Your task to perform on an android device: Go to Google Image 0: 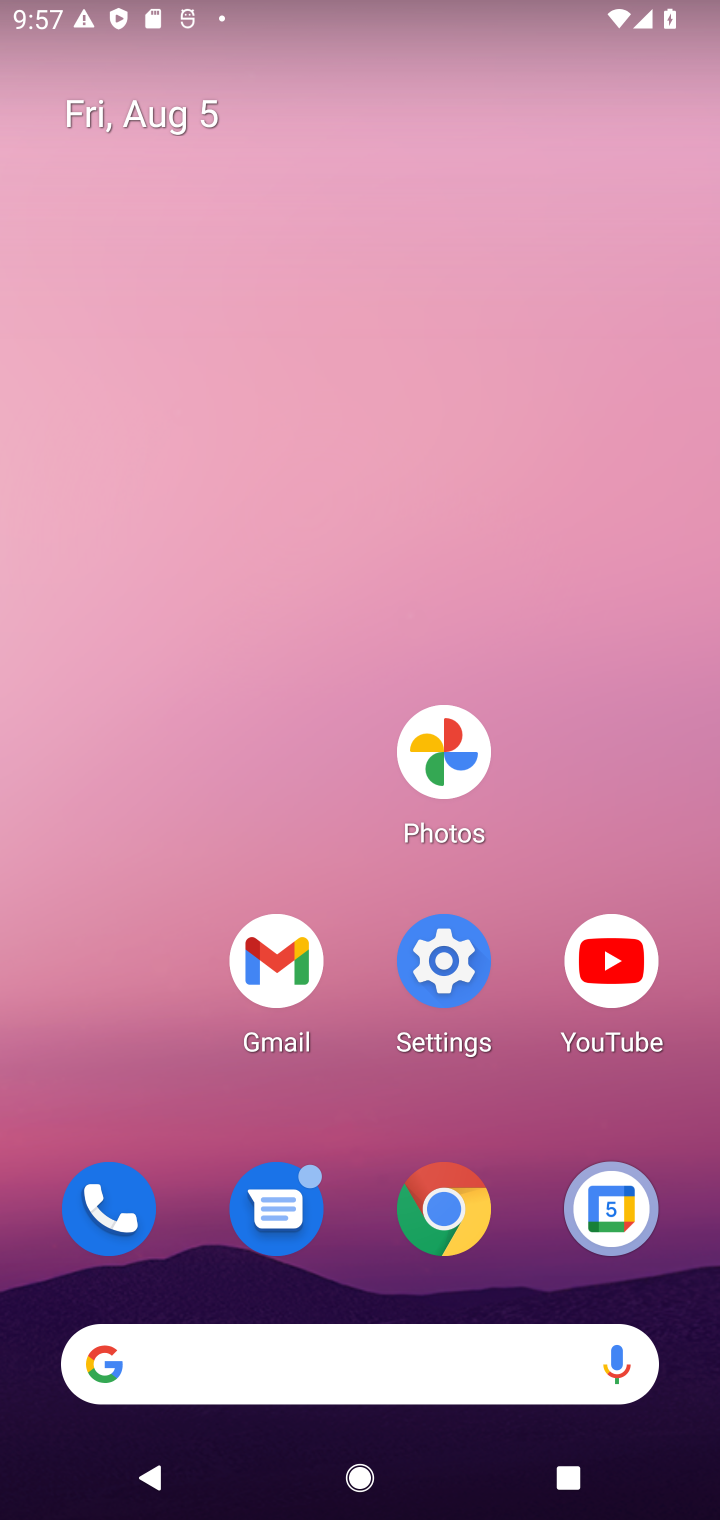
Step 0: drag from (374, 1272) to (414, 405)
Your task to perform on an android device: Go to Google Image 1: 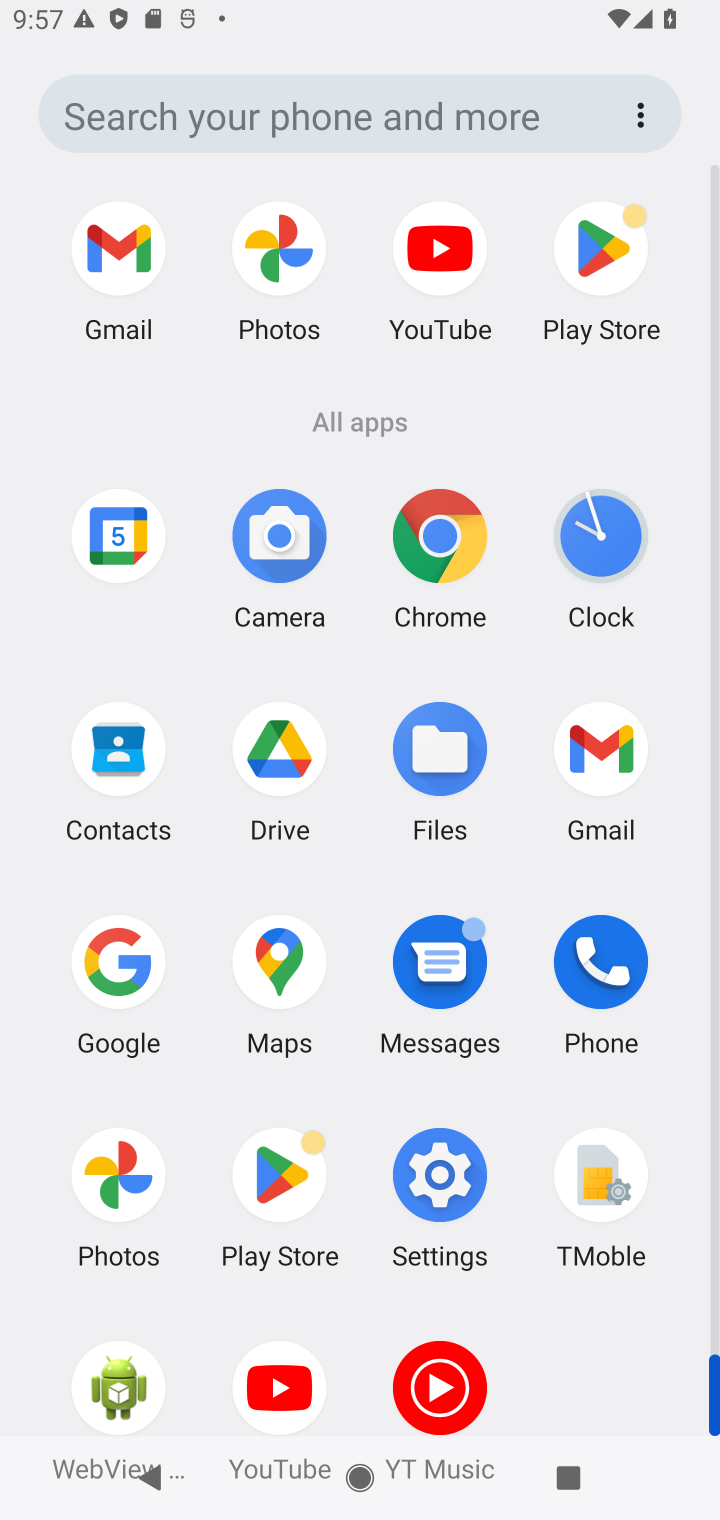
Step 1: click (142, 940)
Your task to perform on an android device: Go to Google Image 2: 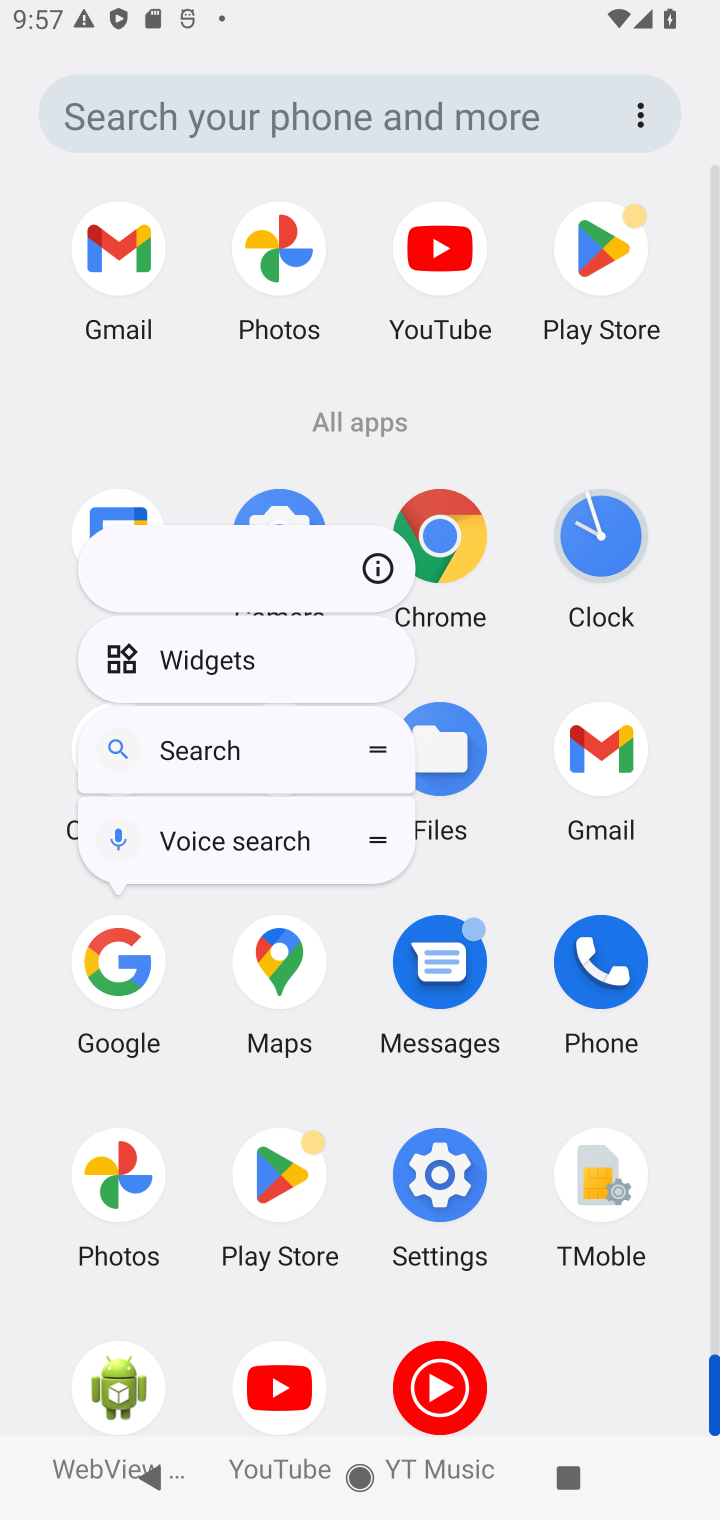
Step 2: click (377, 554)
Your task to perform on an android device: Go to Google Image 3: 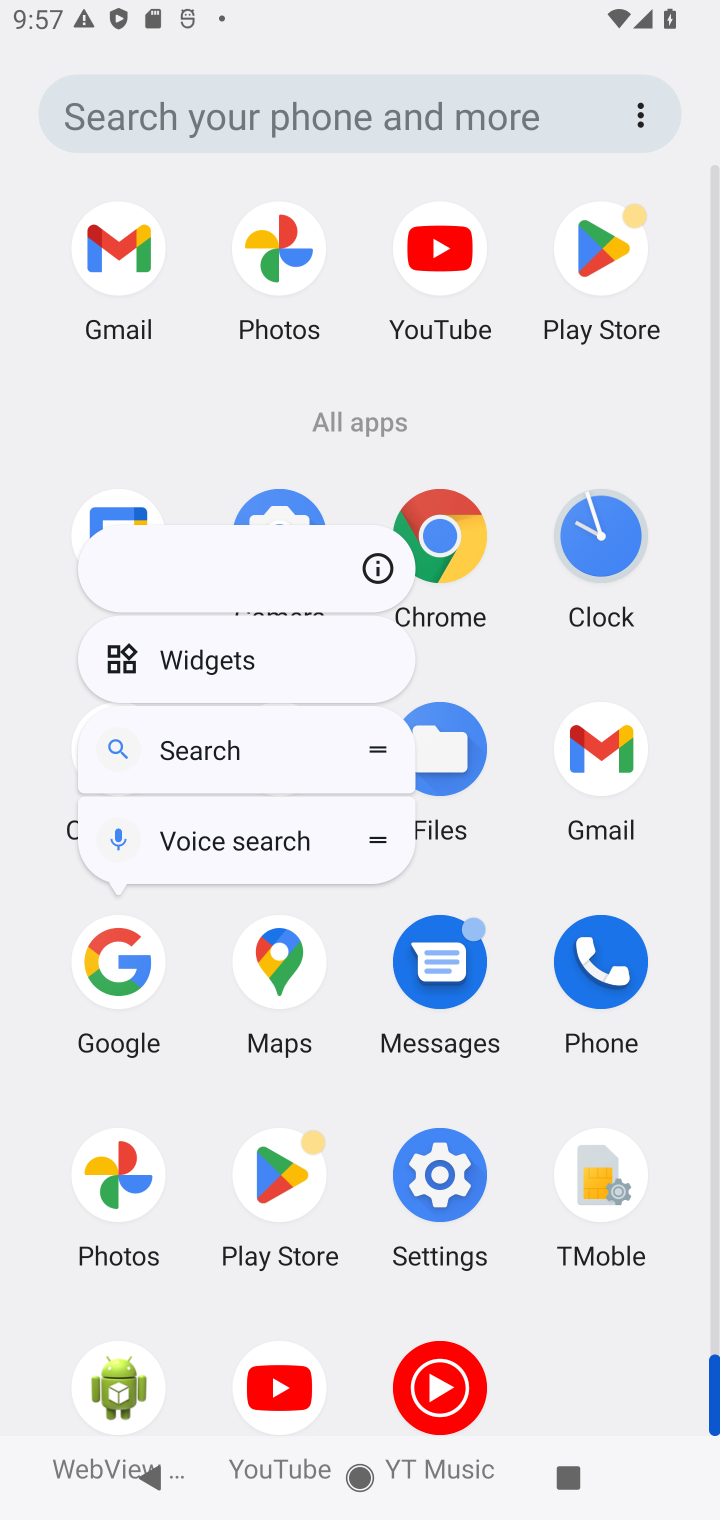
Step 3: click (356, 561)
Your task to perform on an android device: Go to Google Image 4: 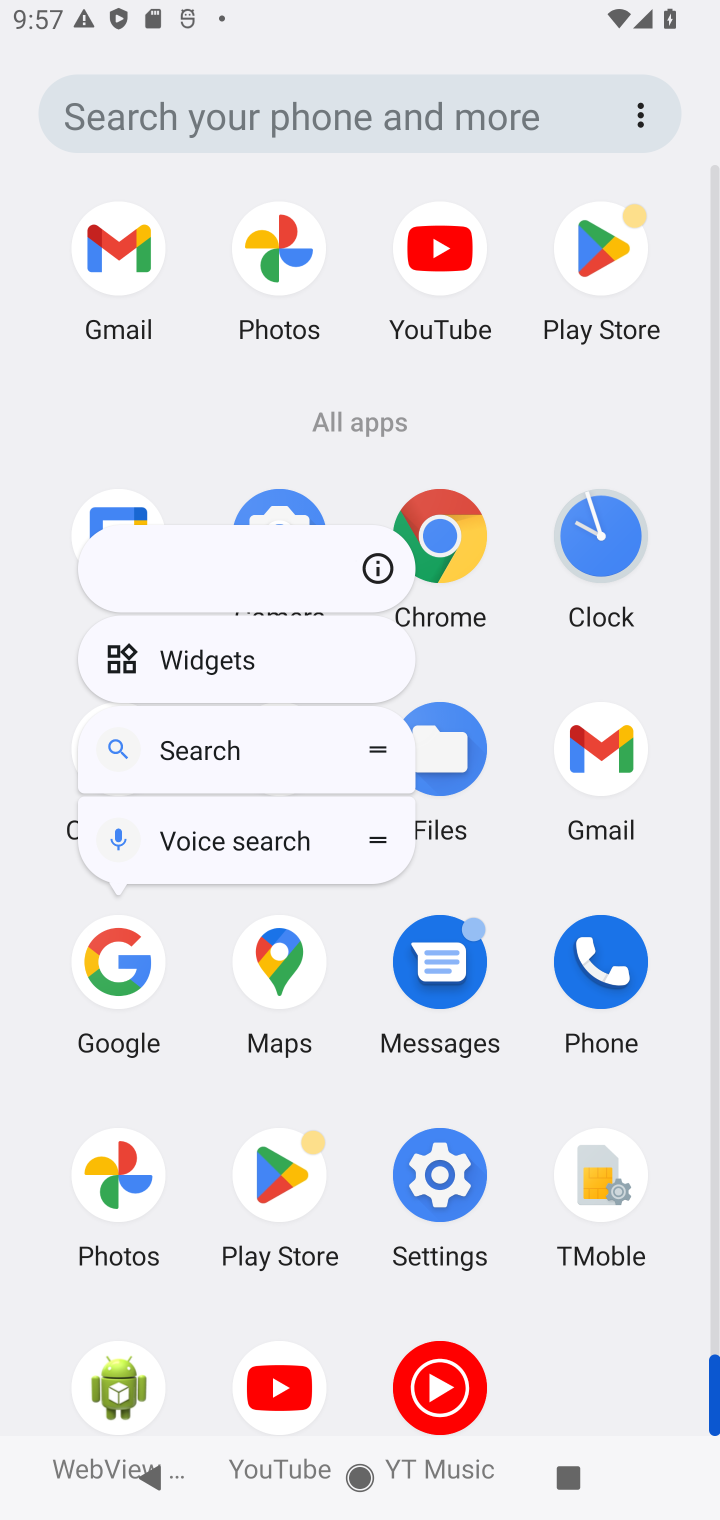
Step 4: click (358, 559)
Your task to perform on an android device: Go to Google Image 5: 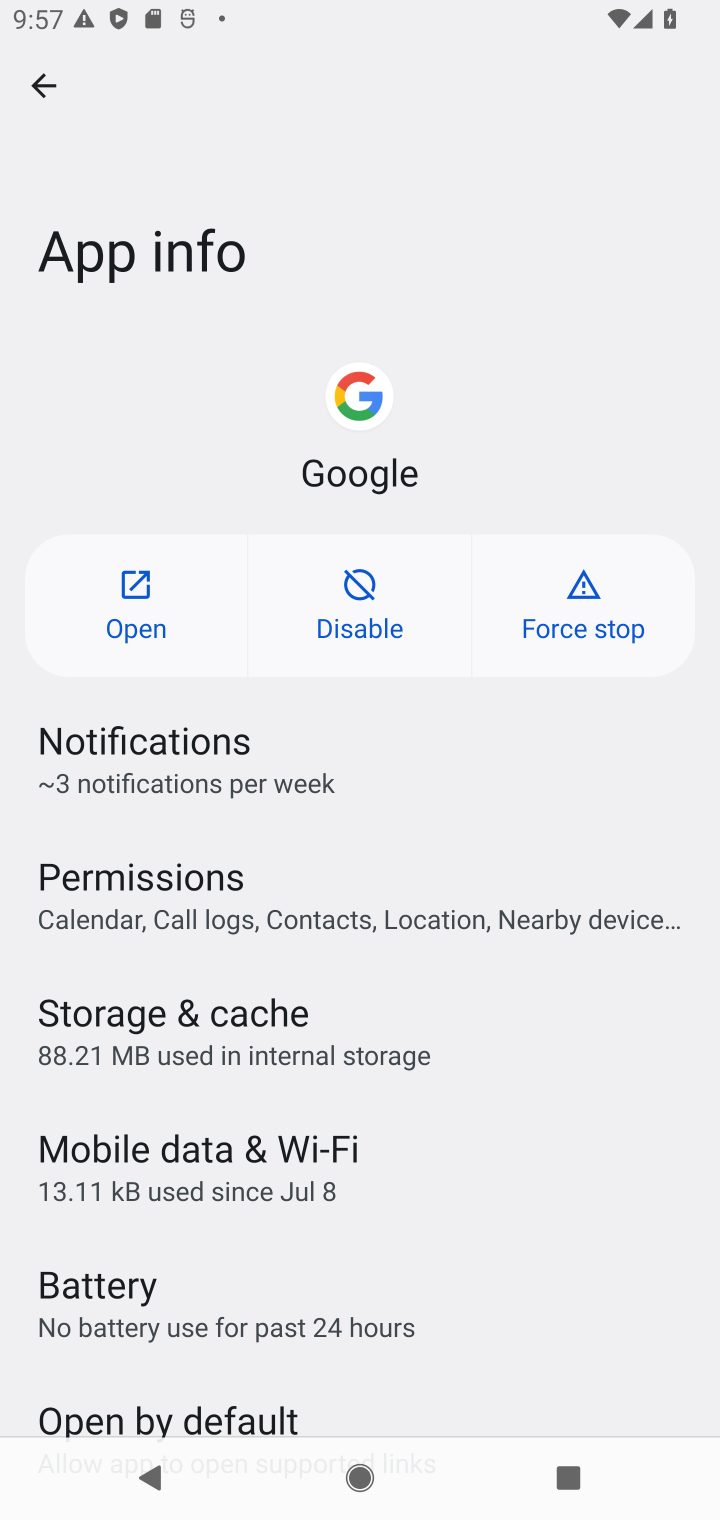
Step 5: click (126, 579)
Your task to perform on an android device: Go to Google Image 6: 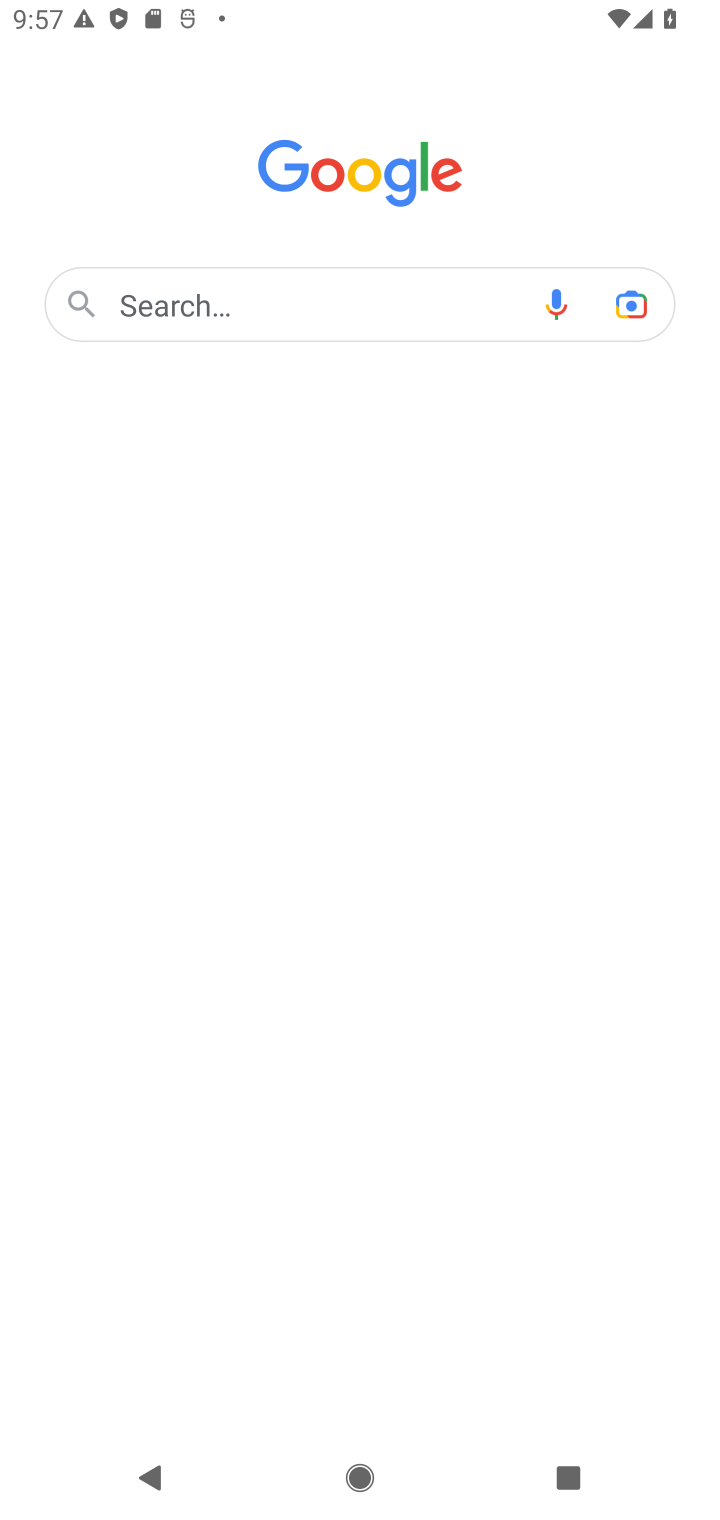
Step 6: task complete